Your task to perform on an android device: check battery use Image 0: 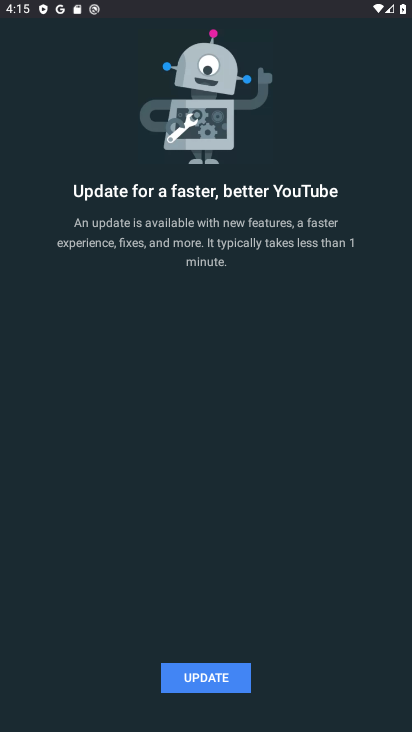
Step 0: press back button
Your task to perform on an android device: check battery use Image 1: 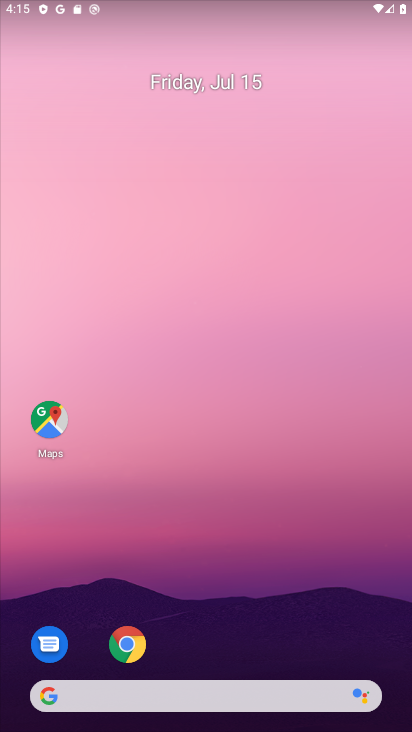
Step 1: drag from (185, 648) to (130, 233)
Your task to perform on an android device: check battery use Image 2: 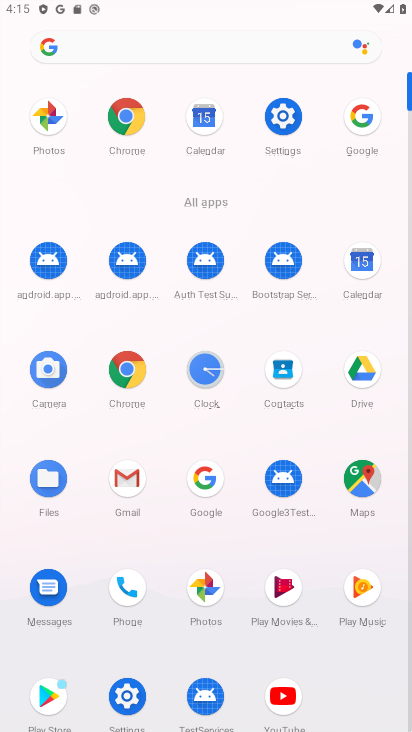
Step 2: click (296, 112)
Your task to perform on an android device: check battery use Image 3: 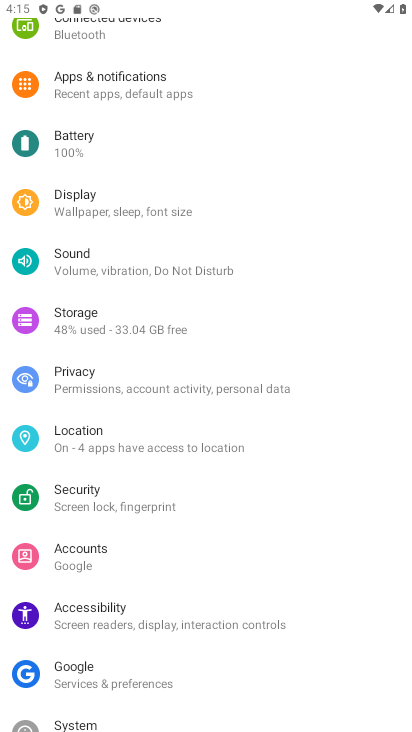
Step 3: click (137, 133)
Your task to perform on an android device: check battery use Image 4: 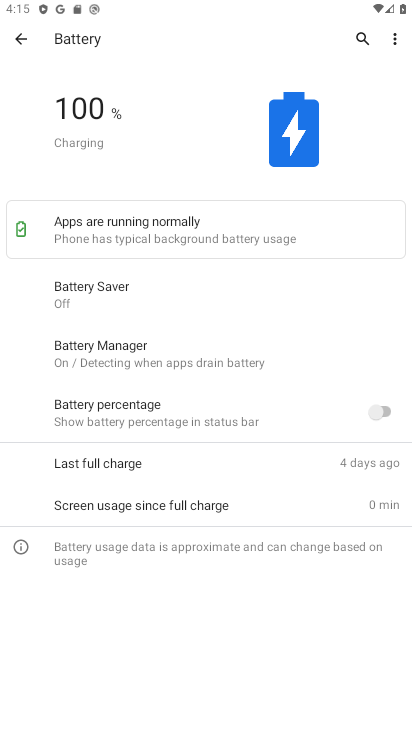
Step 4: click (172, 506)
Your task to perform on an android device: check battery use Image 5: 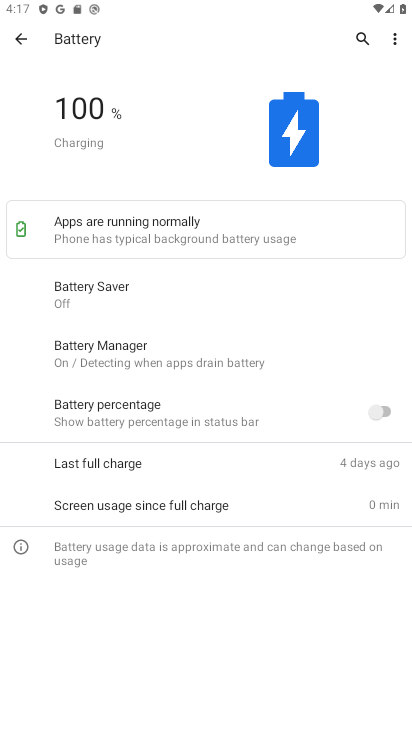
Step 5: task complete